Your task to perform on an android device: set an alarm Image 0: 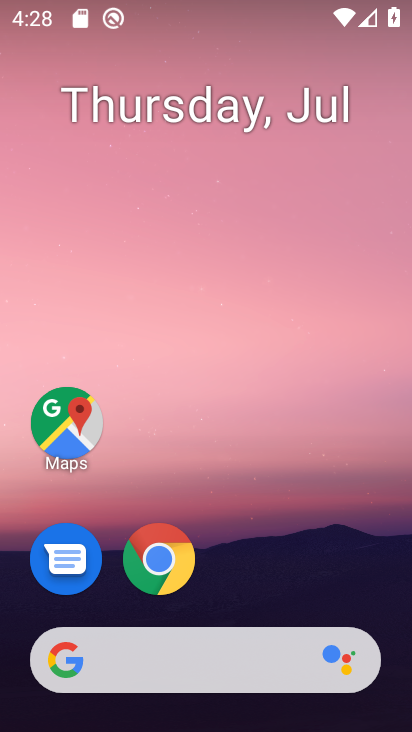
Step 0: drag from (227, 612) to (227, 228)
Your task to perform on an android device: set an alarm Image 1: 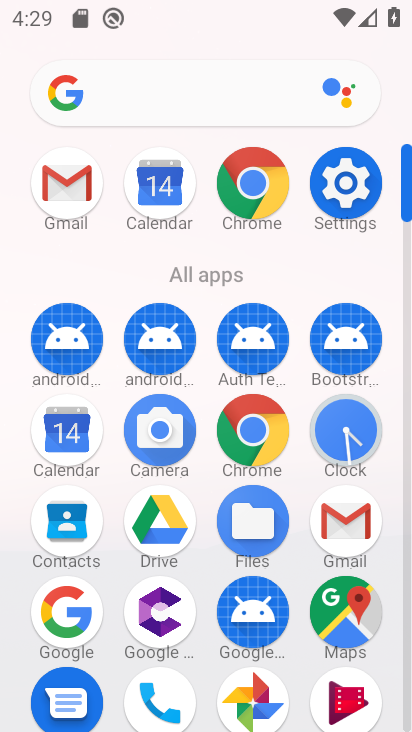
Step 1: click (339, 450)
Your task to perform on an android device: set an alarm Image 2: 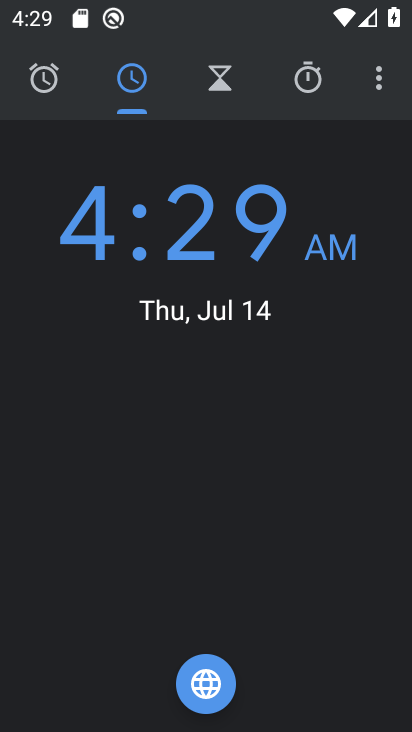
Step 2: click (51, 93)
Your task to perform on an android device: set an alarm Image 3: 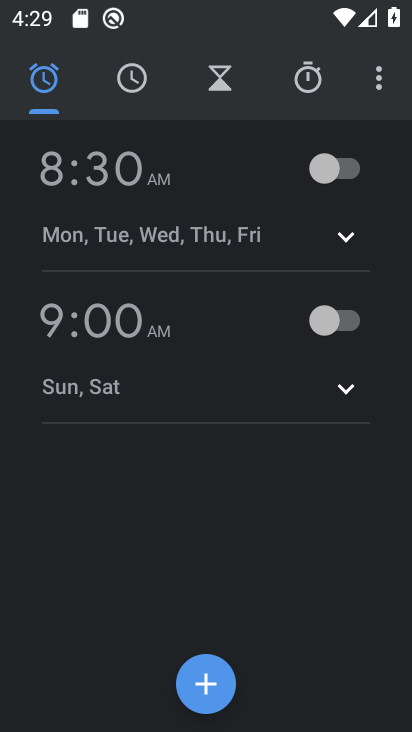
Step 3: click (202, 683)
Your task to perform on an android device: set an alarm Image 4: 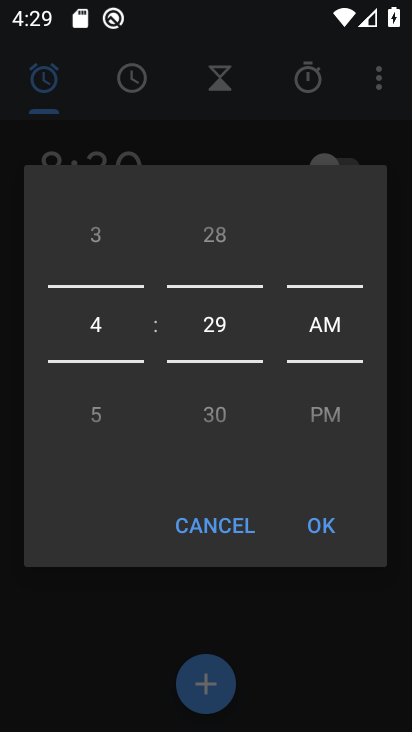
Step 4: click (317, 540)
Your task to perform on an android device: set an alarm Image 5: 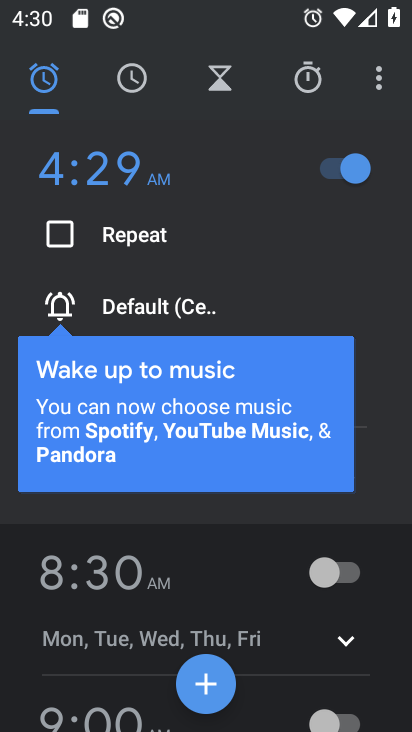
Step 5: task complete